Your task to perform on an android device: turn notification dots off Image 0: 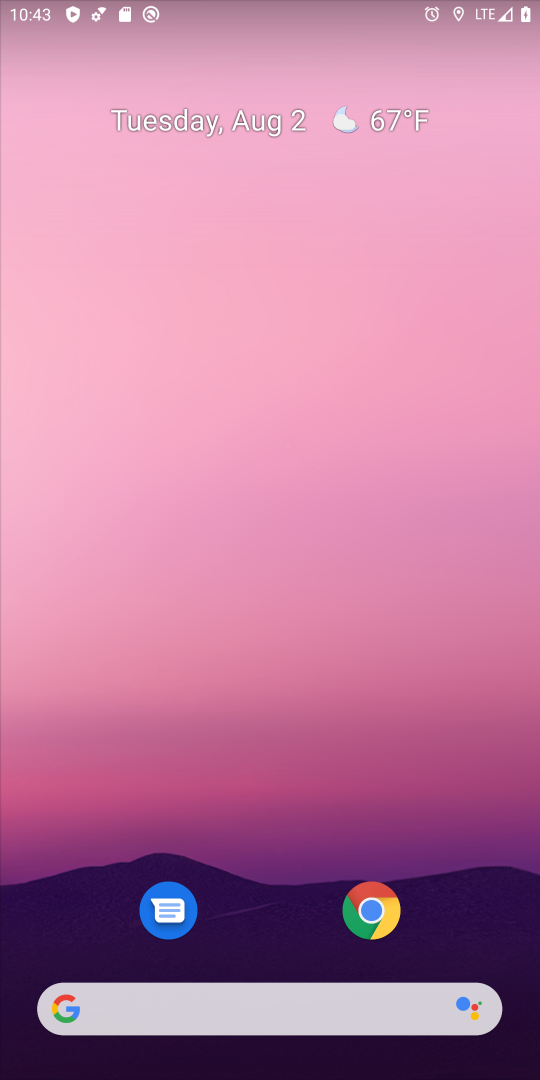
Step 0: drag from (258, 780) to (281, 329)
Your task to perform on an android device: turn notification dots off Image 1: 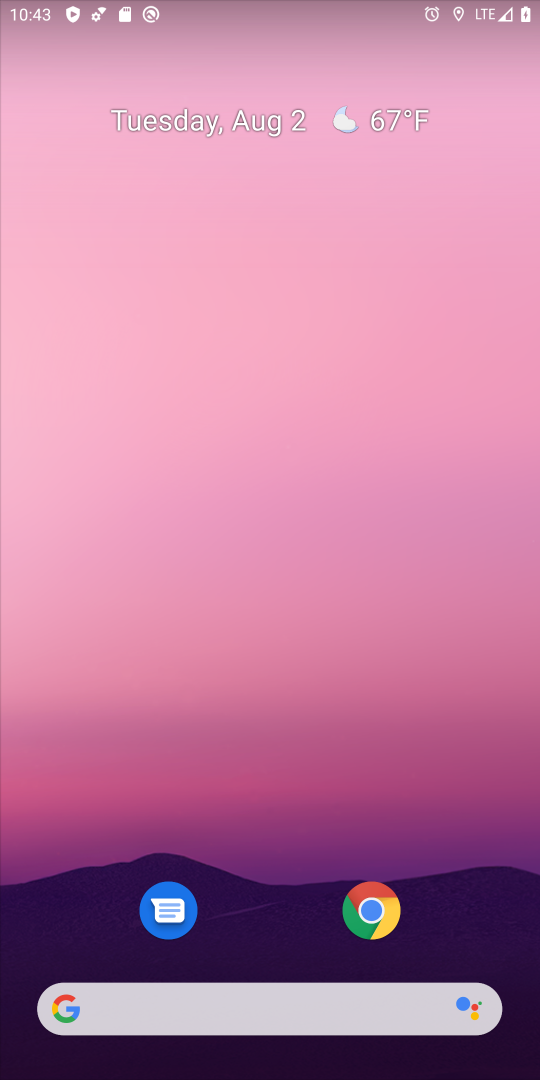
Step 1: drag from (236, 1006) to (361, 299)
Your task to perform on an android device: turn notification dots off Image 2: 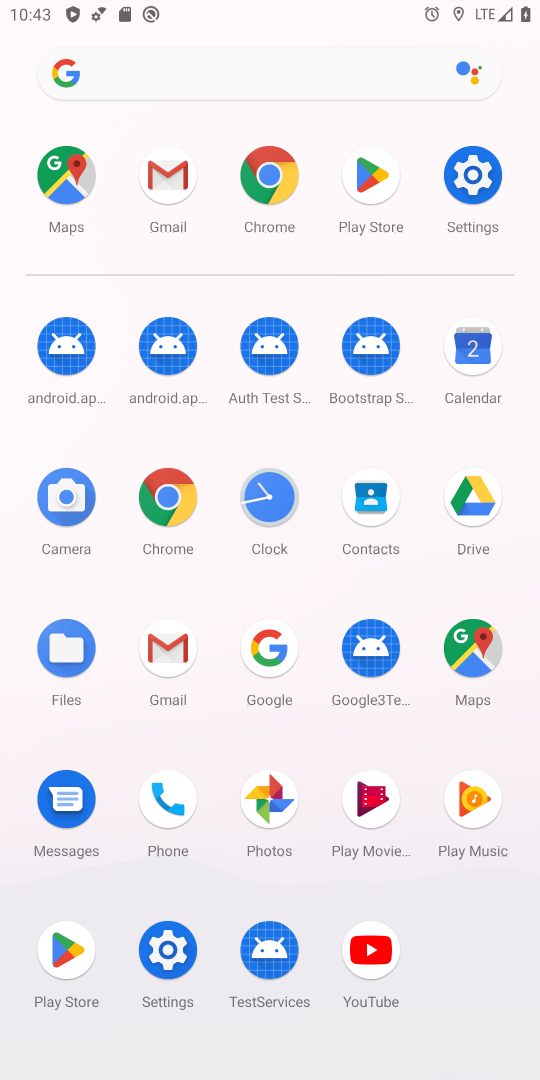
Step 2: click (465, 168)
Your task to perform on an android device: turn notification dots off Image 3: 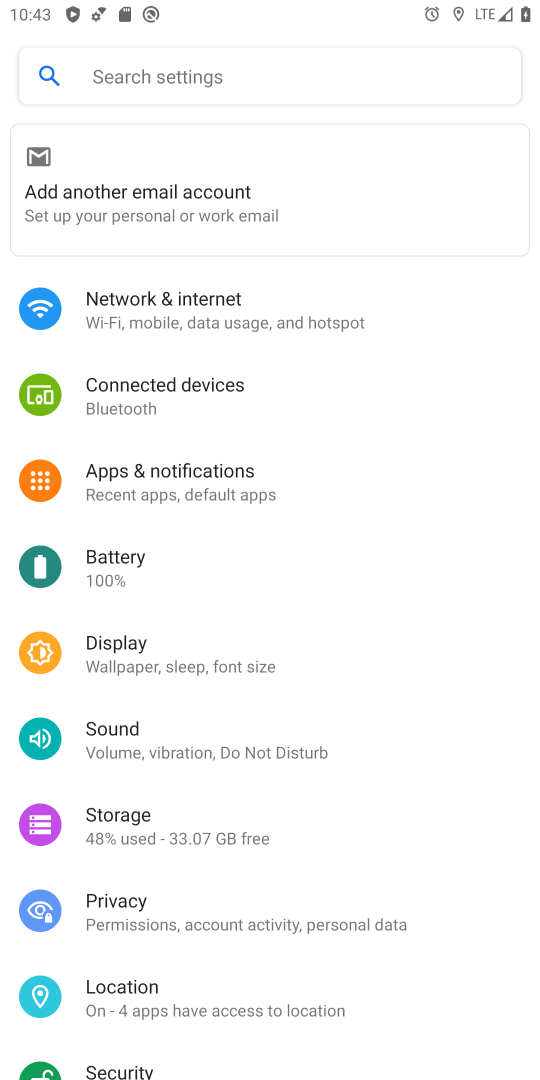
Step 3: click (190, 63)
Your task to perform on an android device: turn notification dots off Image 4: 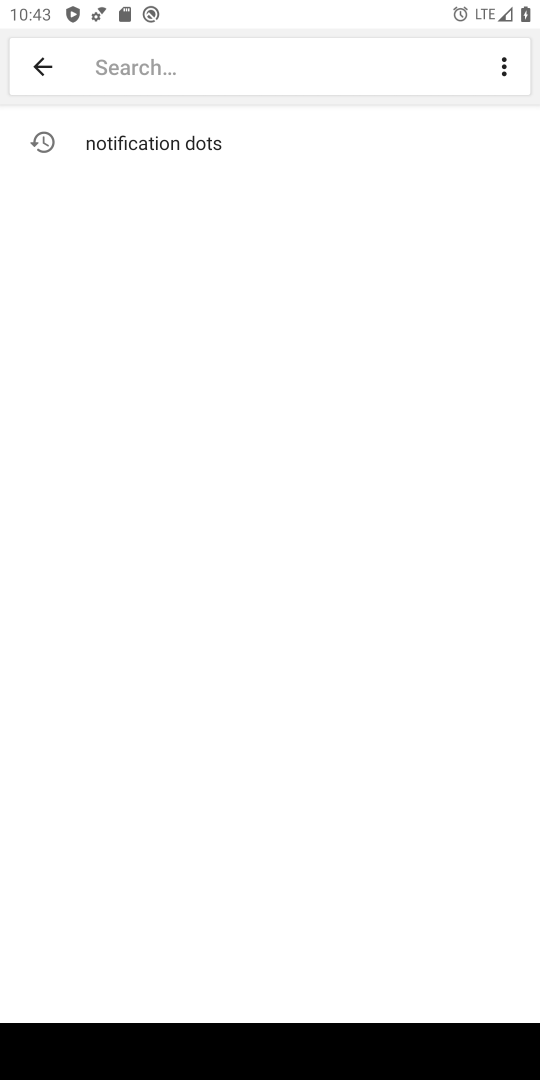
Step 4: click (137, 139)
Your task to perform on an android device: turn notification dots off Image 5: 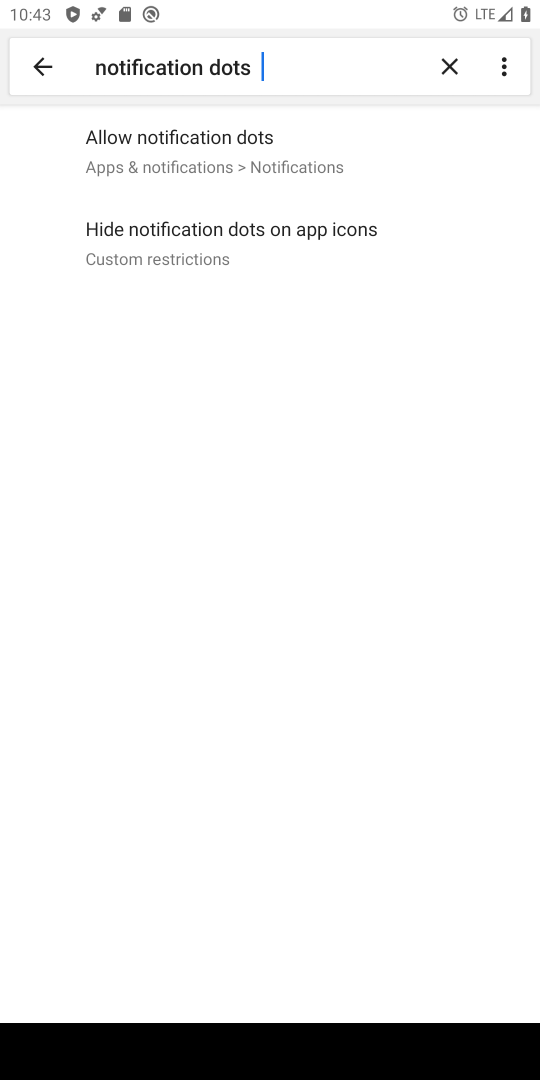
Step 5: click (310, 169)
Your task to perform on an android device: turn notification dots off Image 6: 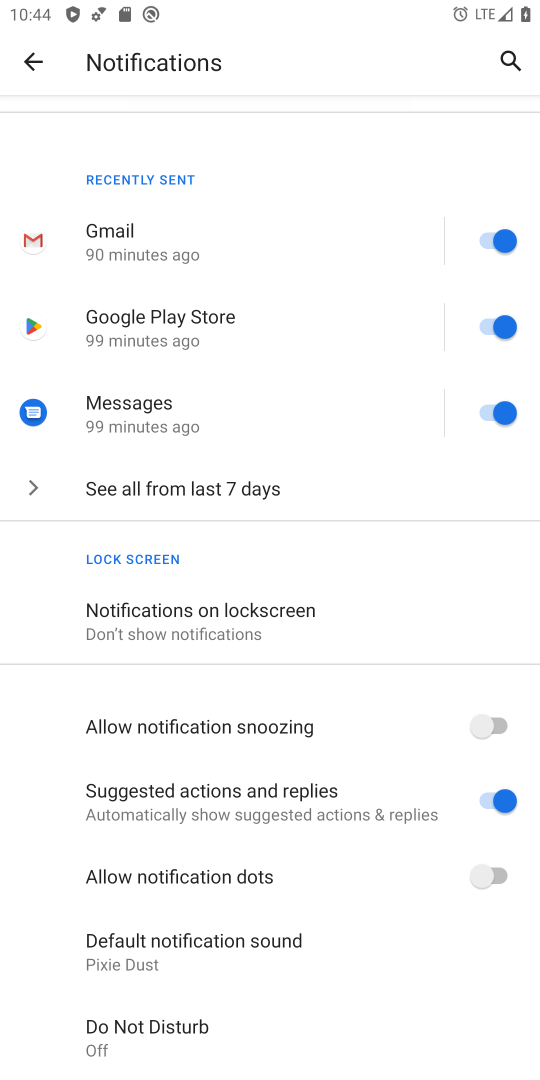
Step 6: task complete